Your task to perform on an android device: turn off data saver in the chrome app Image 0: 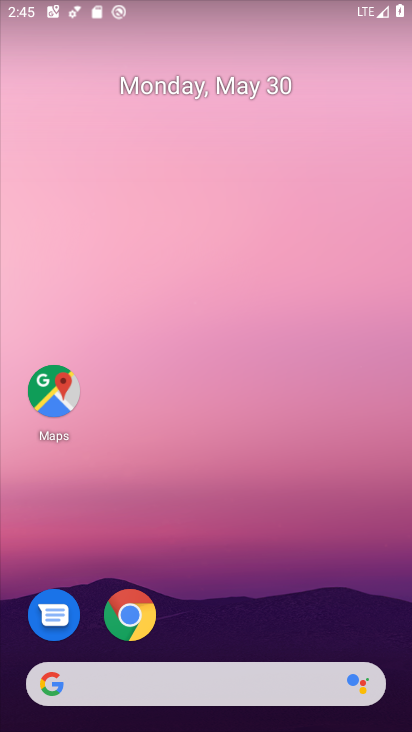
Step 0: click (138, 627)
Your task to perform on an android device: turn off data saver in the chrome app Image 1: 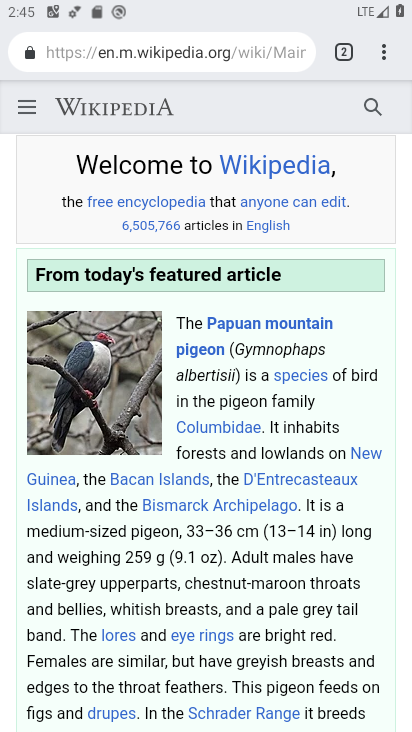
Step 1: click (385, 43)
Your task to perform on an android device: turn off data saver in the chrome app Image 2: 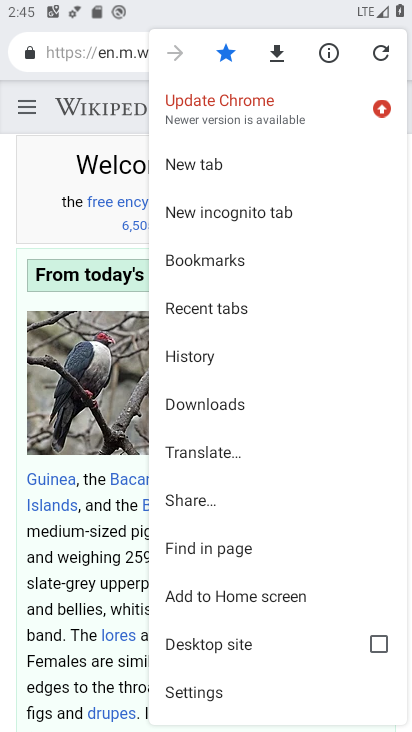
Step 2: click (235, 683)
Your task to perform on an android device: turn off data saver in the chrome app Image 3: 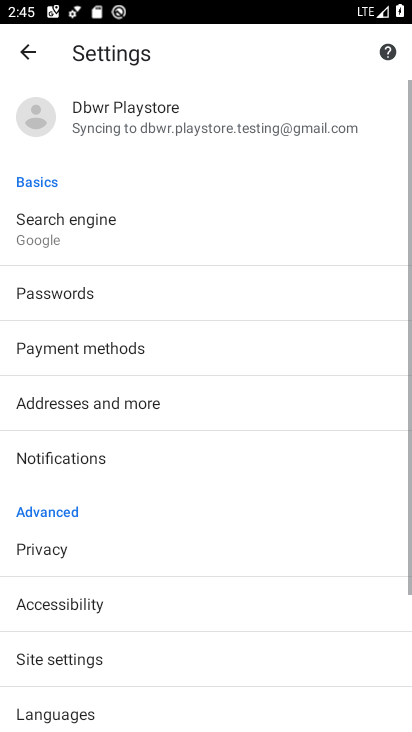
Step 3: drag from (258, 613) to (275, 309)
Your task to perform on an android device: turn off data saver in the chrome app Image 4: 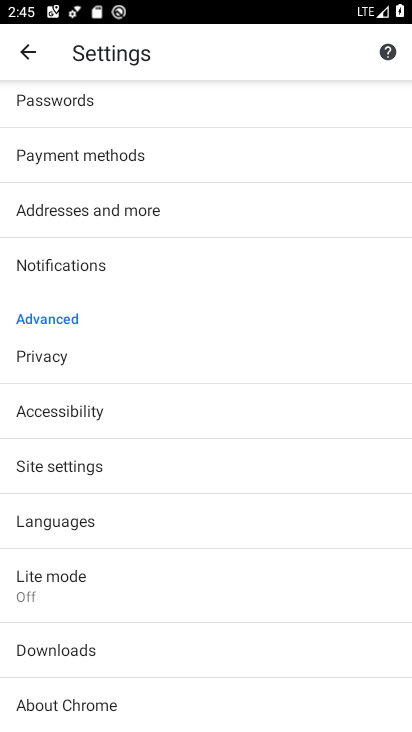
Step 4: click (148, 587)
Your task to perform on an android device: turn off data saver in the chrome app Image 5: 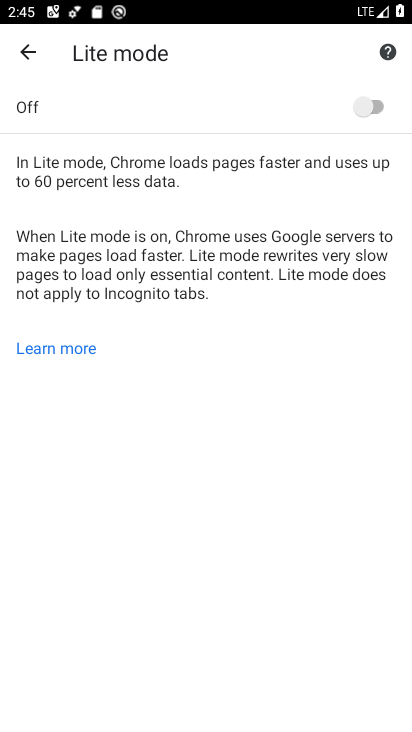
Step 5: task complete